Your task to perform on an android device: Search for usb-a on costco, select the first entry, and add it to the cart. Image 0: 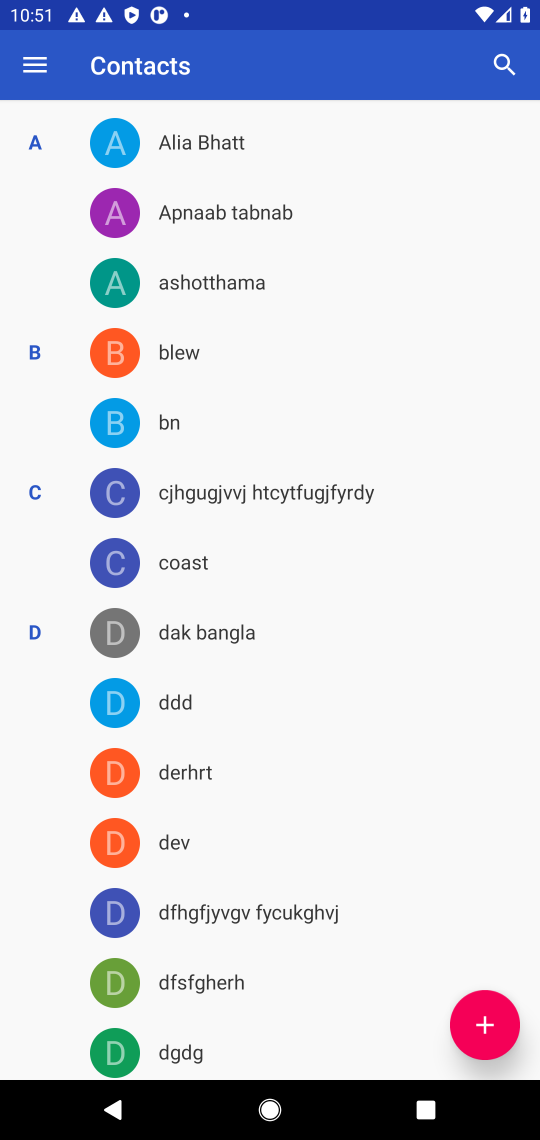
Step 0: press home button
Your task to perform on an android device: Search for usb-a on costco, select the first entry, and add it to the cart. Image 1: 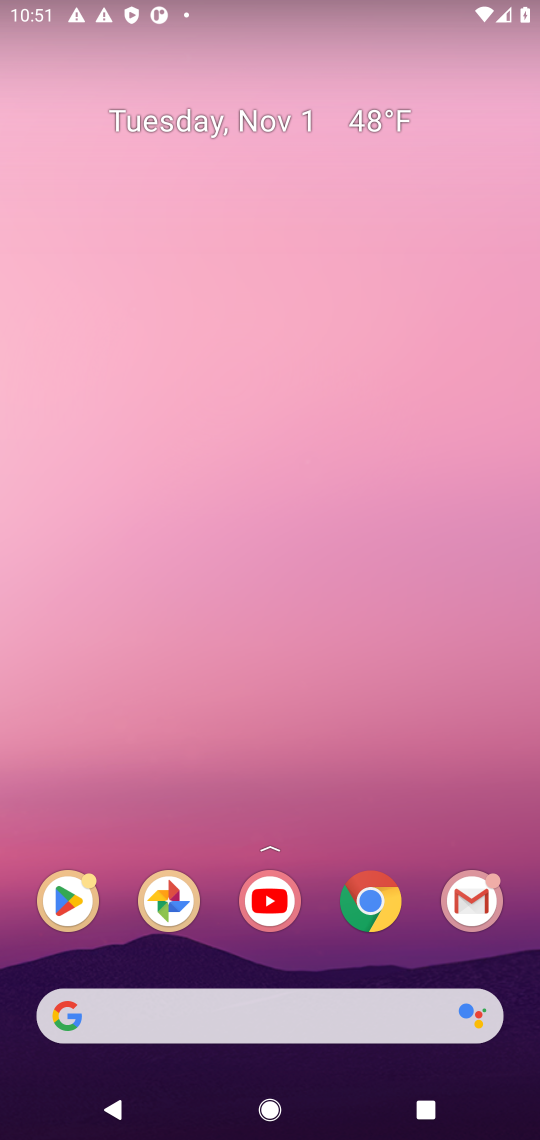
Step 1: drag from (307, 959) to (326, 199)
Your task to perform on an android device: Search for usb-a on costco, select the first entry, and add it to the cart. Image 2: 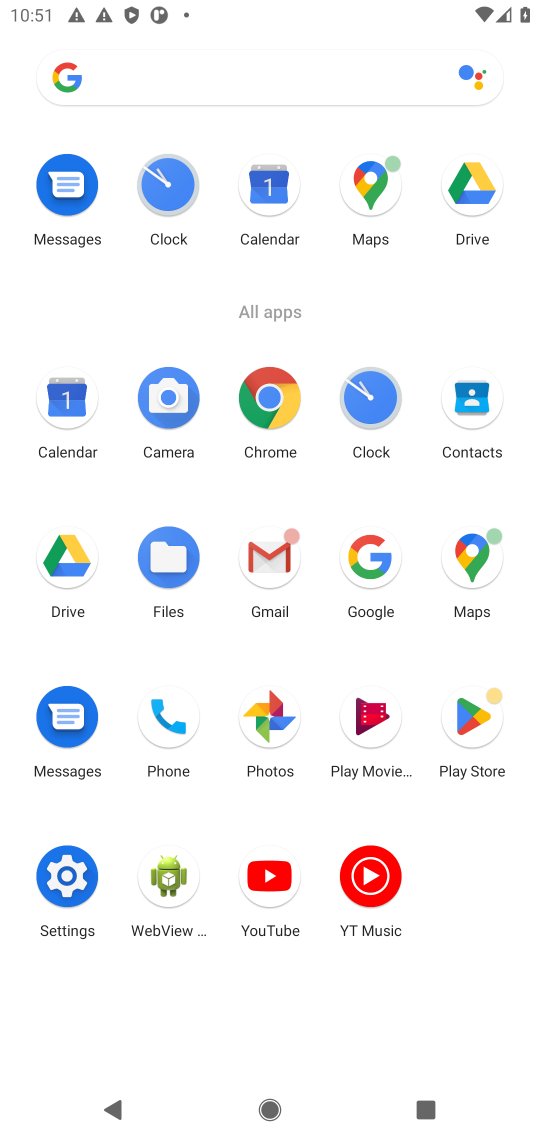
Step 2: click (276, 403)
Your task to perform on an android device: Search for usb-a on costco, select the first entry, and add it to the cart. Image 3: 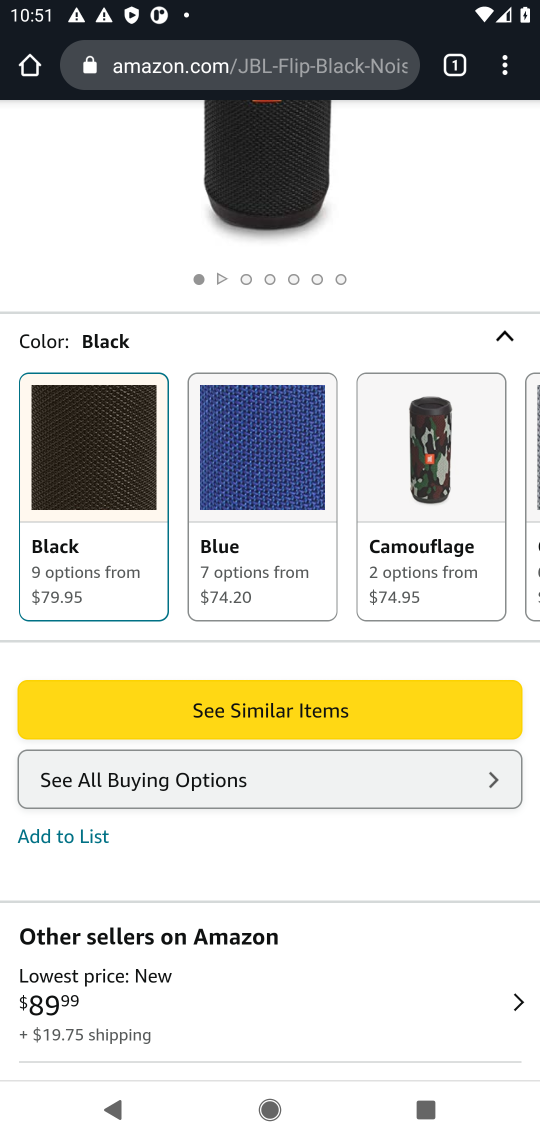
Step 3: click (303, 79)
Your task to perform on an android device: Search for usb-a on costco, select the first entry, and add it to the cart. Image 4: 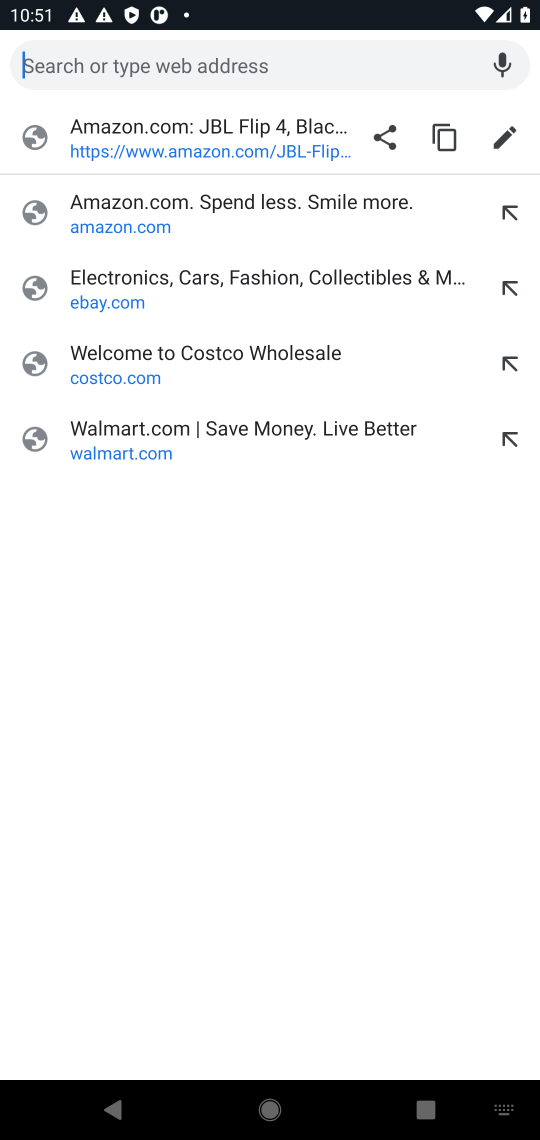
Step 4: type "costco.com"
Your task to perform on an android device: Search for usb-a on costco, select the first entry, and add it to the cart. Image 5: 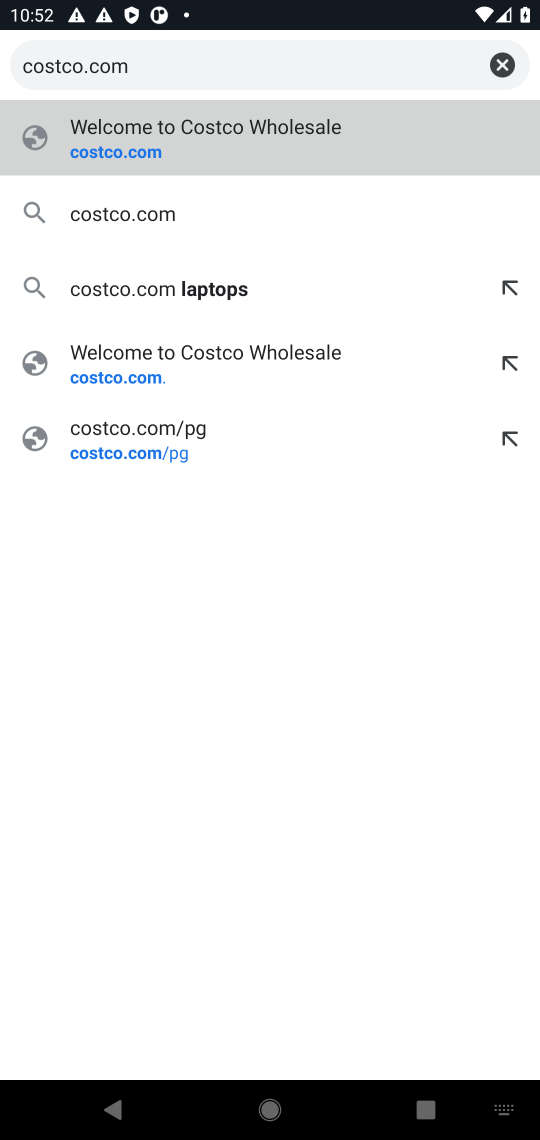
Step 5: press enter
Your task to perform on an android device: Search for usb-a on costco, select the first entry, and add it to the cart. Image 6: 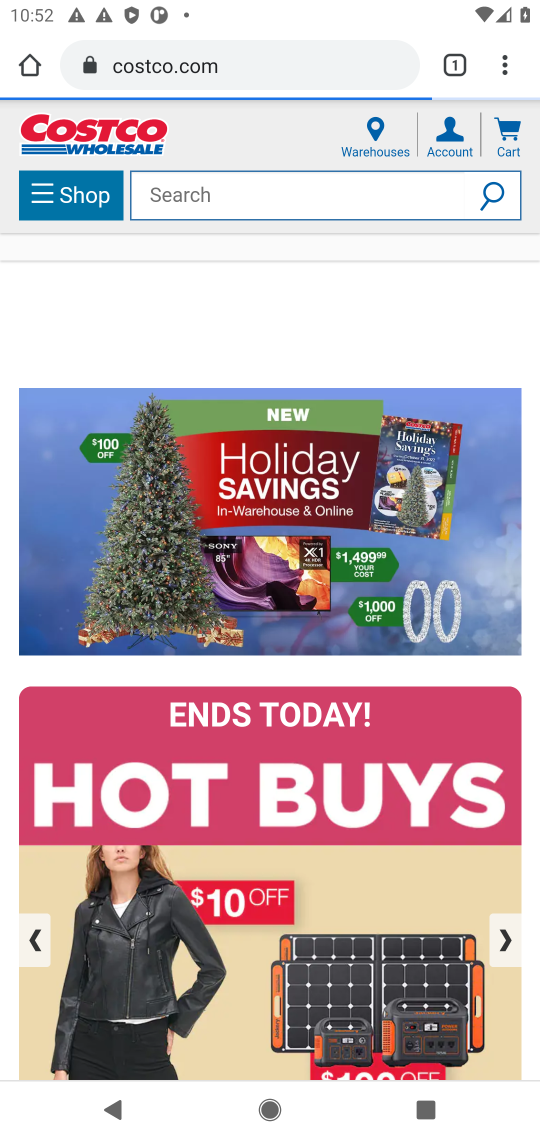
Step 6: click (285, 189)
Your task to perform on an android device: Search for usb-a on costco, select the first entry, and add it to the cart. Image 7: 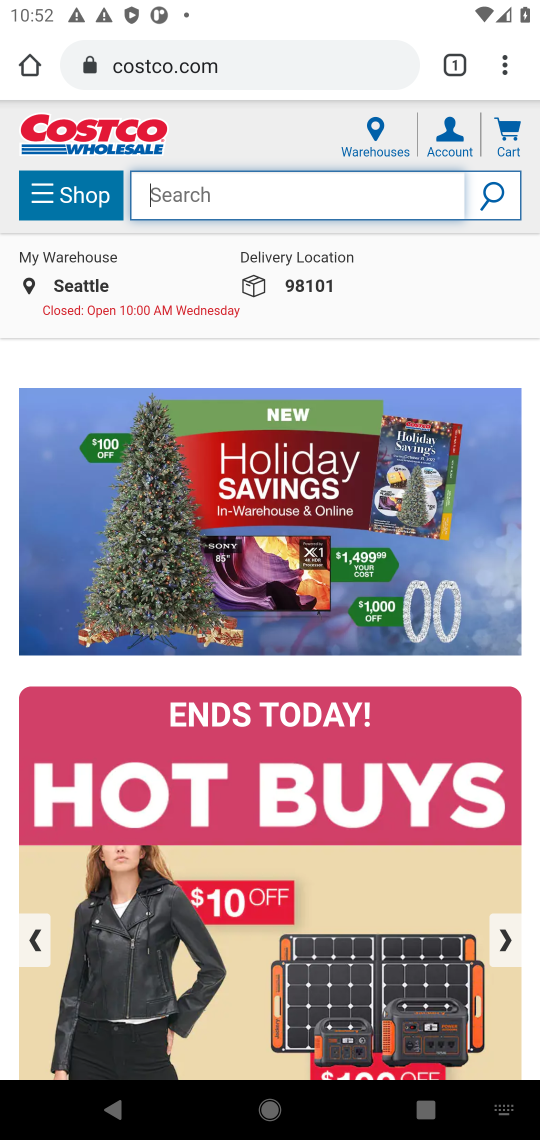
Step 7: type "usb-a"
Your task to perform on an android device: Search for usb-a on costco, select the first entry, and add it to the cart. Image 8: 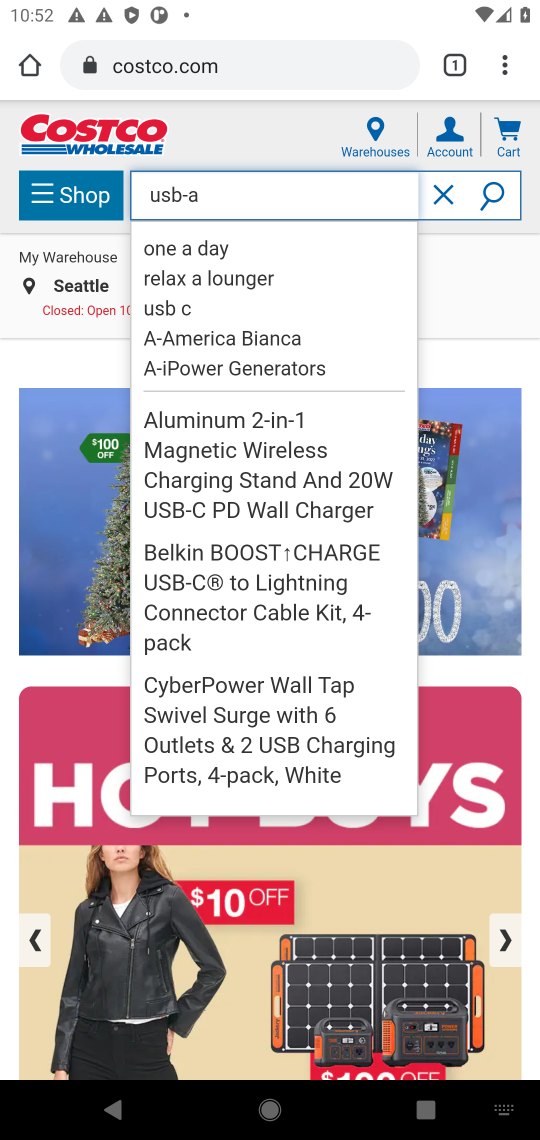
Step 8: press enter
Your task to perform on an android device: Search for usb-a on costco, select the first entry, and add it to the cart. Image 9: 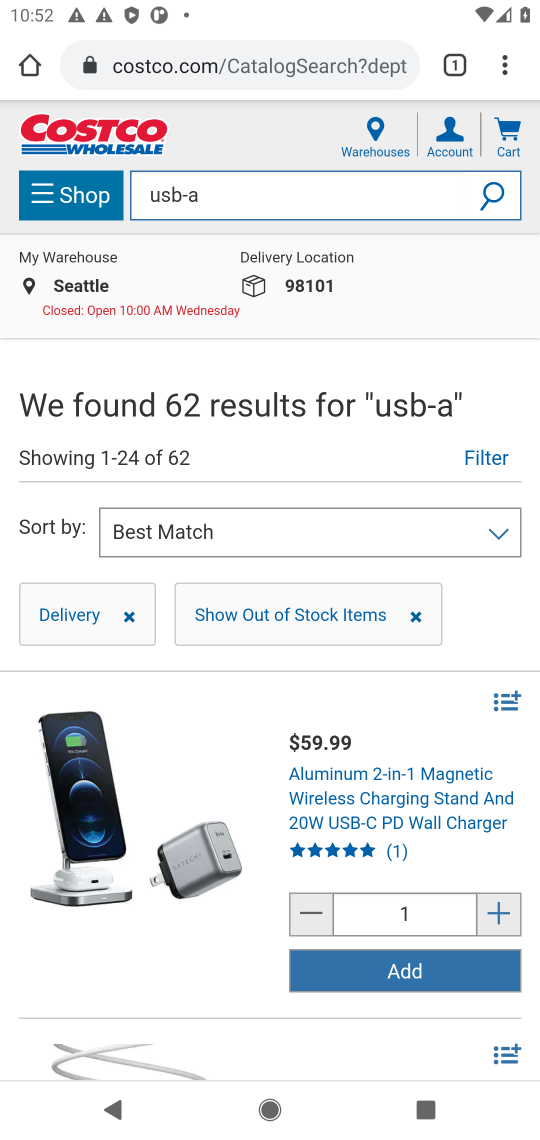
Step 9: task complete